Your task to perform on an android device: open a bookmark in the chrome app Image 0: 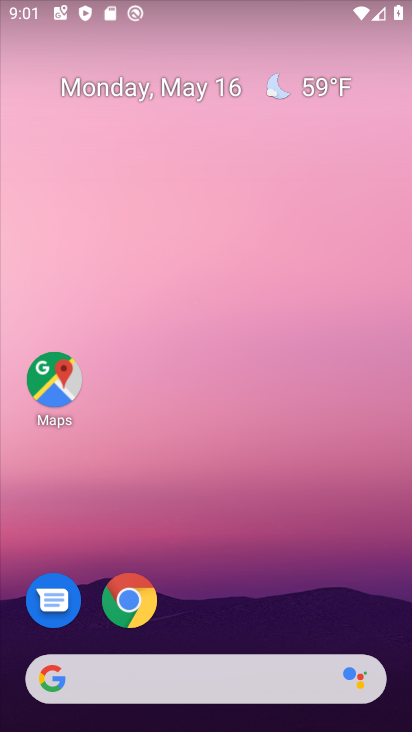
Step 0: click (129, 588)
Your task to perform on an android device: open a bookmark in the chrome app Image 1: 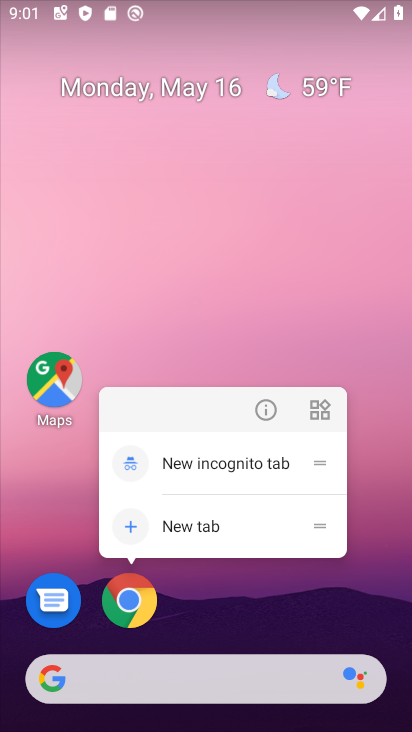
Step 1: click (115, 595)
Your task to perform on an android device: open a bookmark in the chrome app Image 2: 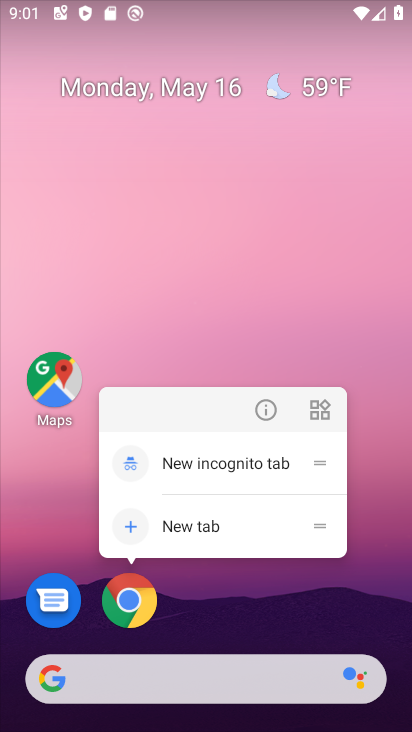
Step 2: click (132, 609)
Your task to perform on an android device: open a bookmark in the chrome app Image 3: 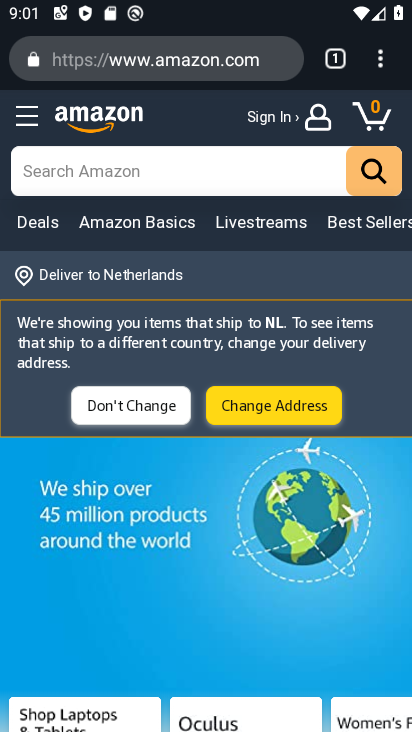
Step 3: click (381, 62)
Your task to perform on an android device: open a bookmark in the chrome app Image 4: 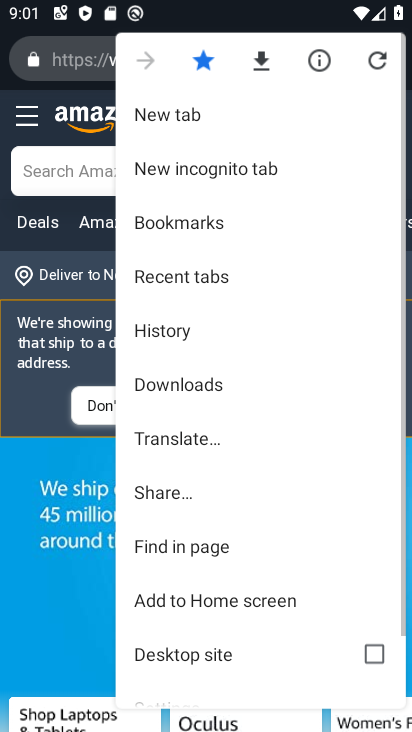
Step 4: click (198, 213)
Your task to perform on an android device: open a bookmark in the chrome app Image 5: 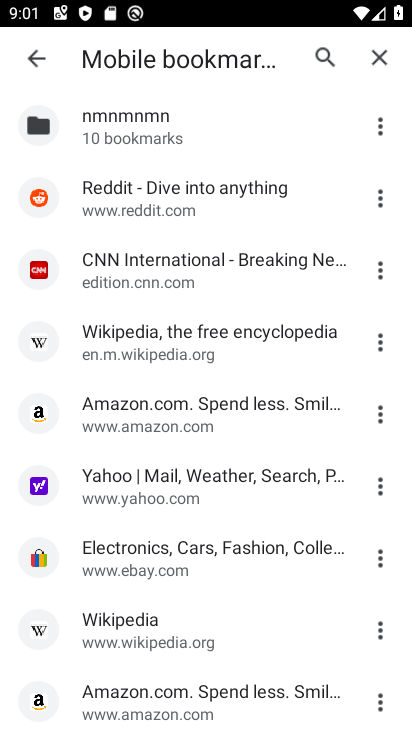
Step 5: task complete